Your task to perform on an android device: Search for logitech g933 on bestbuy.com, select the first entry, add it to the cart, then select checkout. Image 0: 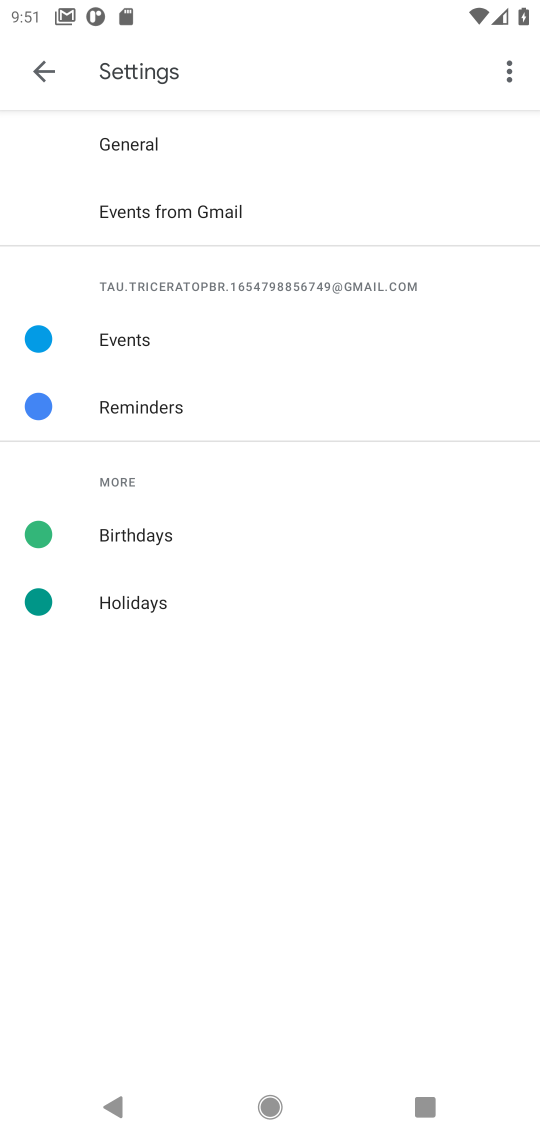
Step 0: press home button
Your task to perform on an android device: Search for logitech g933 on bestbuy.com, select the first entry, add it to the cart, then select checkout. Image 1: 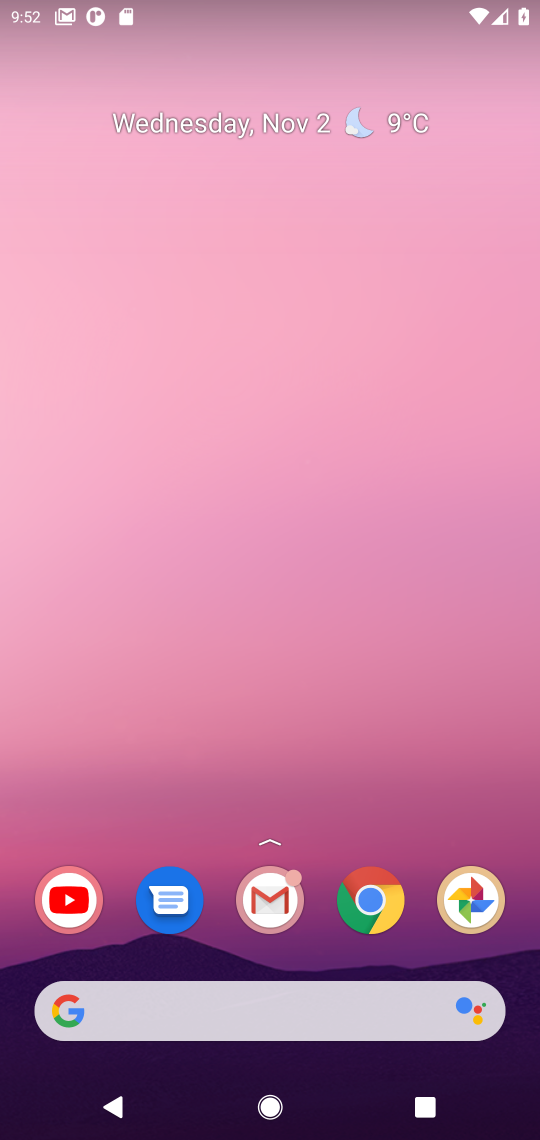
Step 1: click (366, 913)
Your task to perform on an android device: Search for logitech g933 on bestbuy.com, select the first entry, add it to the cart, then select checkout. Image 2: 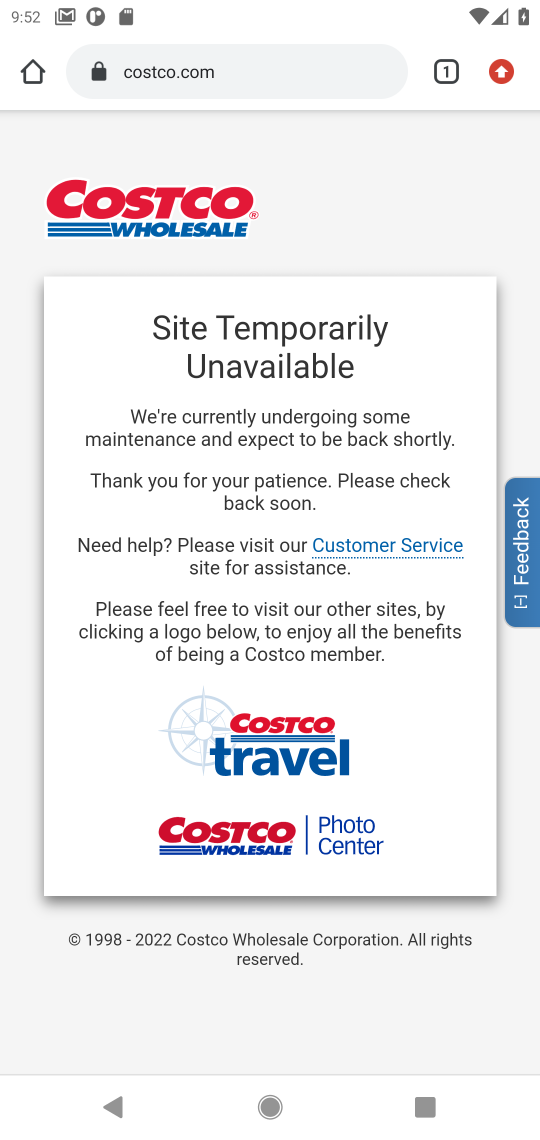
Step 2: click (231, 53)
Your task to perform on an android device: Search for logitech g933 on bestbuy.com, select the first entry, add it to the cart, then select checkout. Image 3: 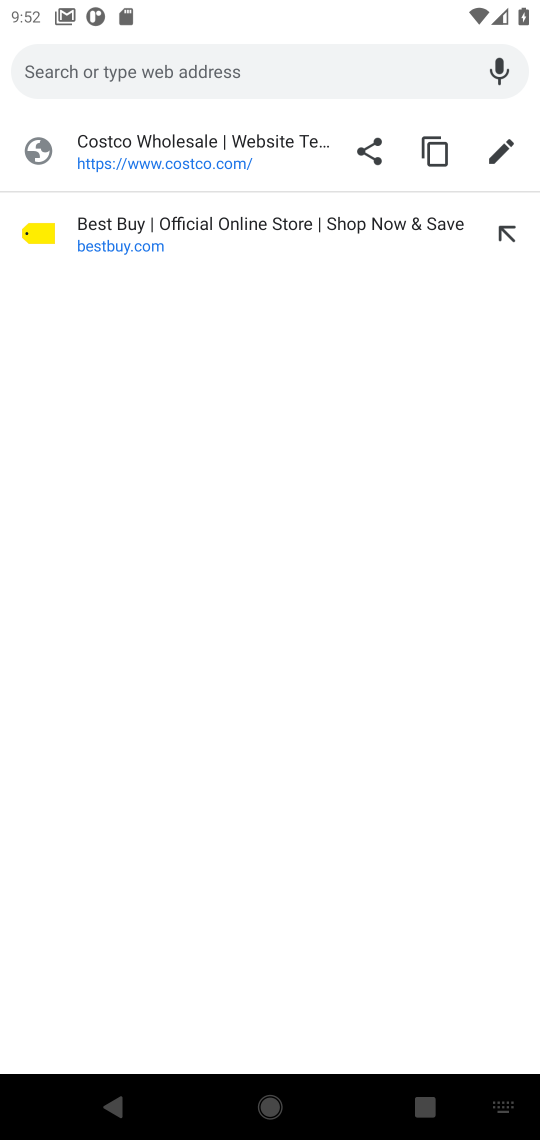
Step 3: click (184, 238)
Your task to perform on an android device: Search for logitech g933 on bestbuy.com, select the first entry, add it to the cart, then select checkout. Image 4: 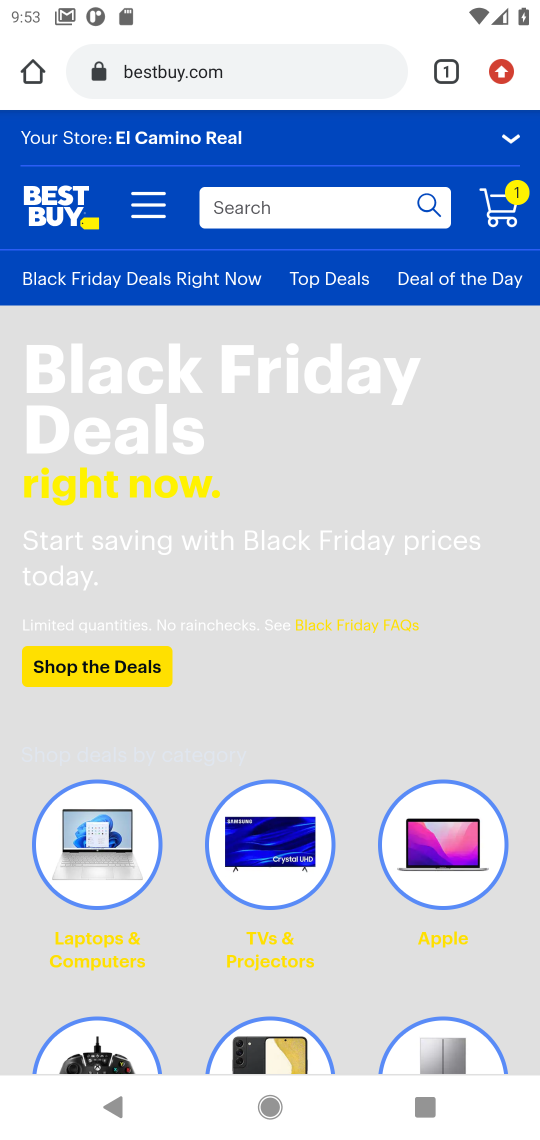
Step 4: click (301, 209)
Your task to perform on an android device: Search for logitech g933 on bestbuy.com, select the first entry, add it to the cart, then select checkout. Image 5: 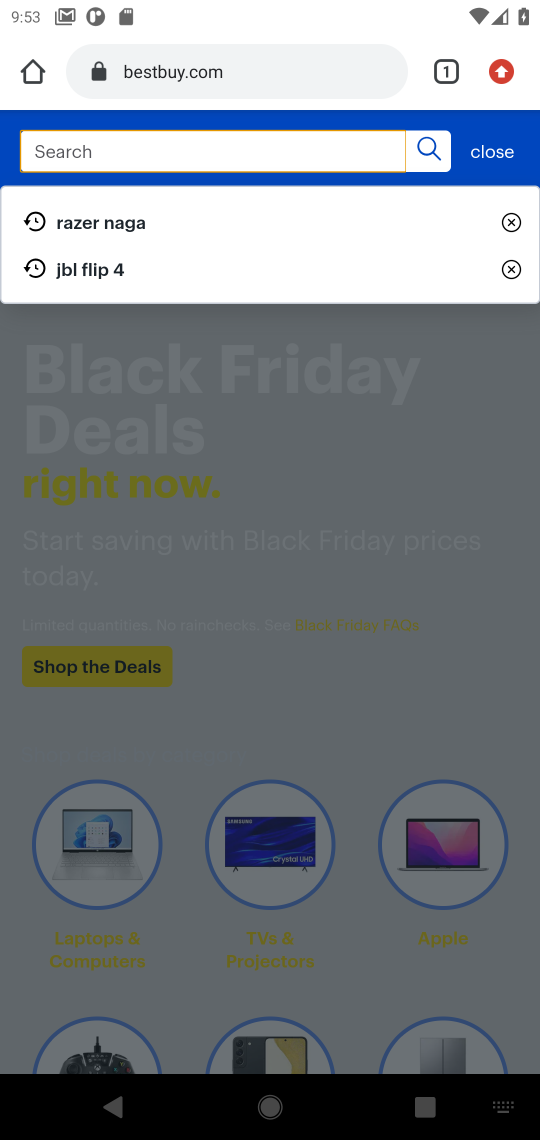
Step 5: type " logitech g933"
Your task to perform on an android device: Search for logitech g933 on bestbuy.com, select the first entry, add it to the cart, then select checkout. Image 6: 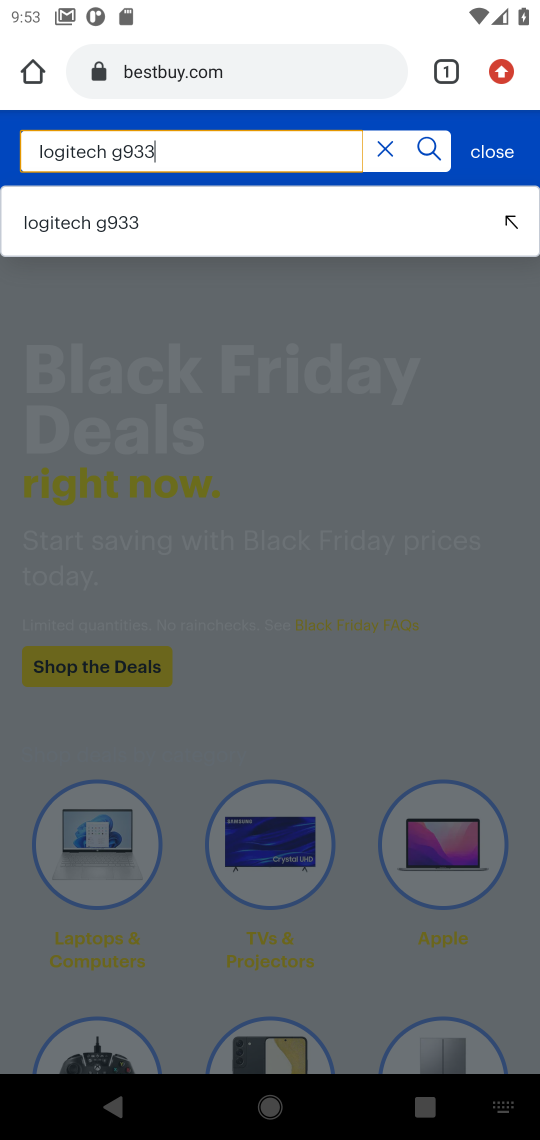
Step 6: click (59, 208)
Your task to perform on an android device: Search for logitech g933 on bestbuy.com, select the first entry, add it to the cart, then select checkout. Image 7: 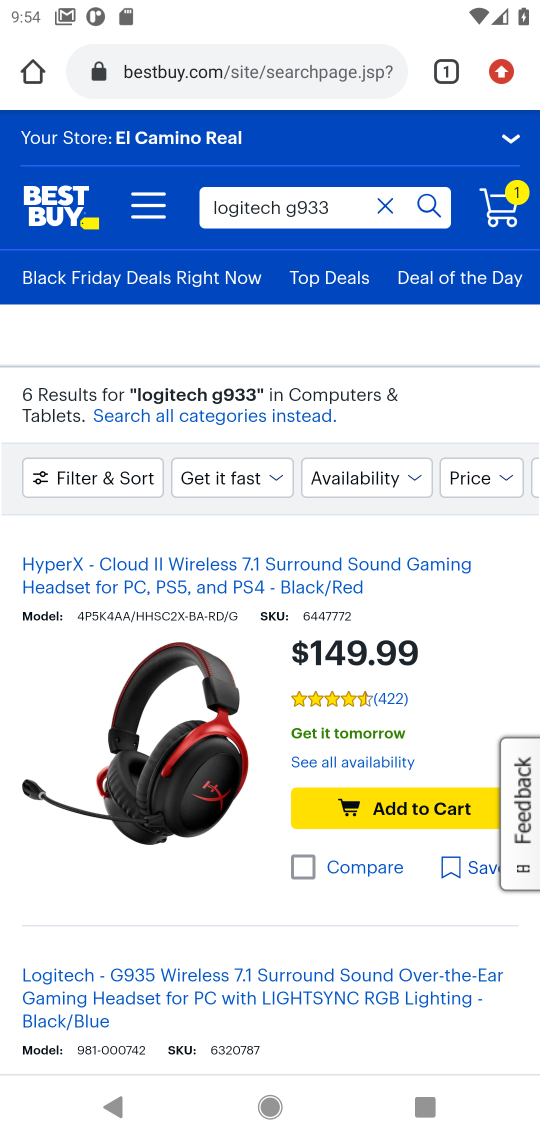
Step 7: drag from (262, 1018) to (317, 314)
Your task to perform on an android device: Search for logitech g933 on bestbuy.com, select the first entry, add it to the cart, then select checkout. Image 8: 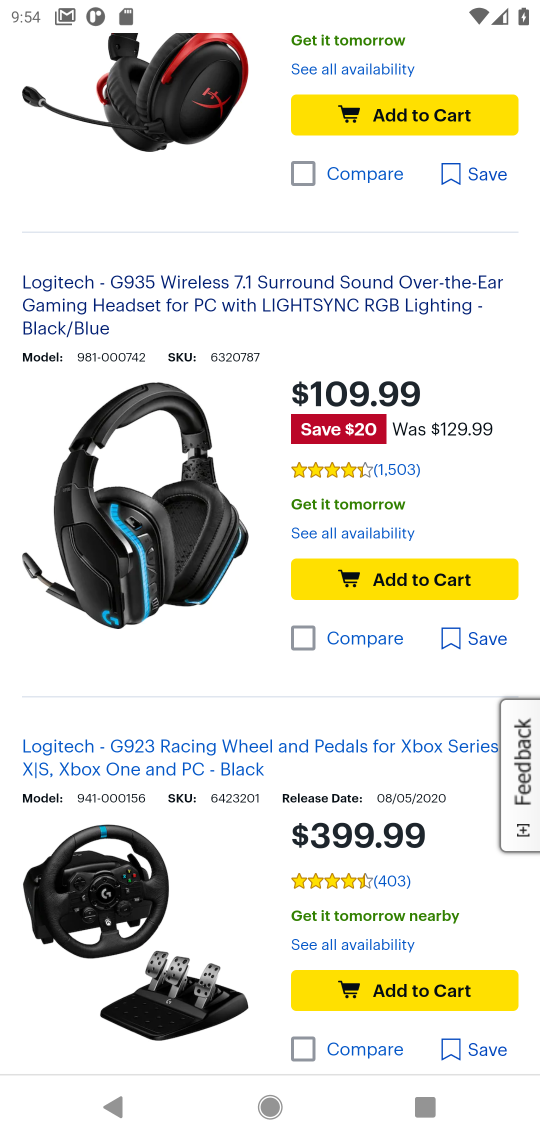
Step 8: click (390, 940)
Your task to perform on an android device: Search for logitech g933 on bestbuy.com, select the first entry, add it to the cart, then select checkout. Image 9: 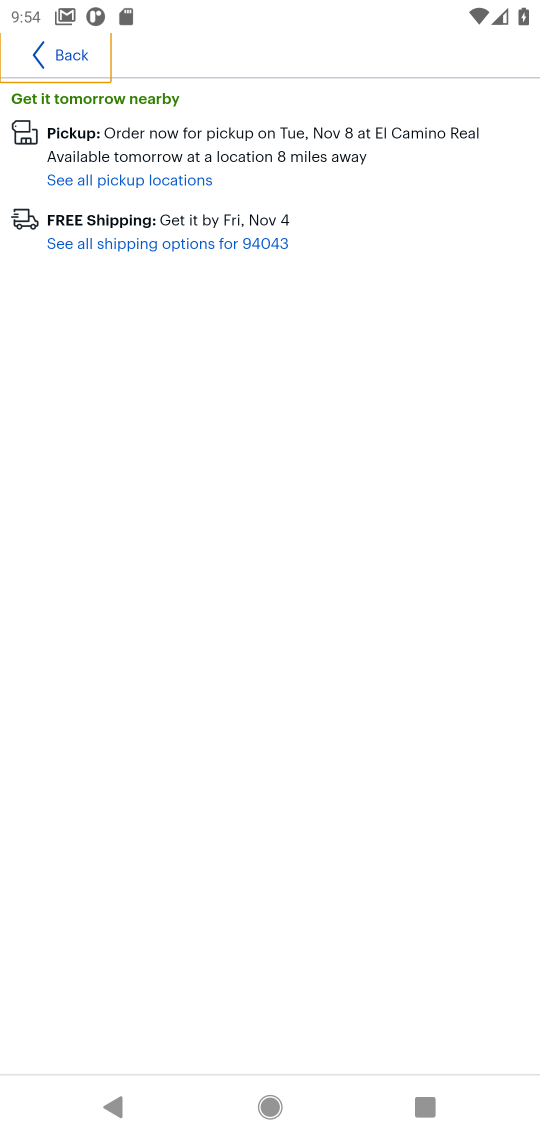
Step 9: click (39, 45)
Your task to perform on an android device: Search for logitech g933 on bestbuy.com, select the first entry, add it to the cart, then select checkout. Image 10: 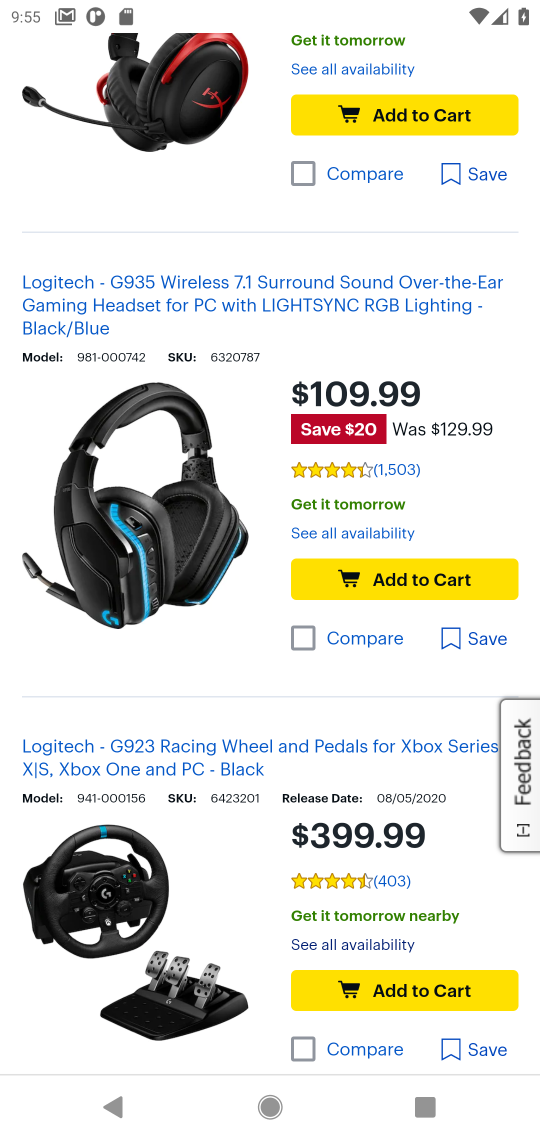
Step 10: drag from (144, 111) to (21, 820)
Your task to perform on an android device: Search for logitech g933 on bestbuy.com, select the first entry, add it to the cart, then select checkout. Image 11: 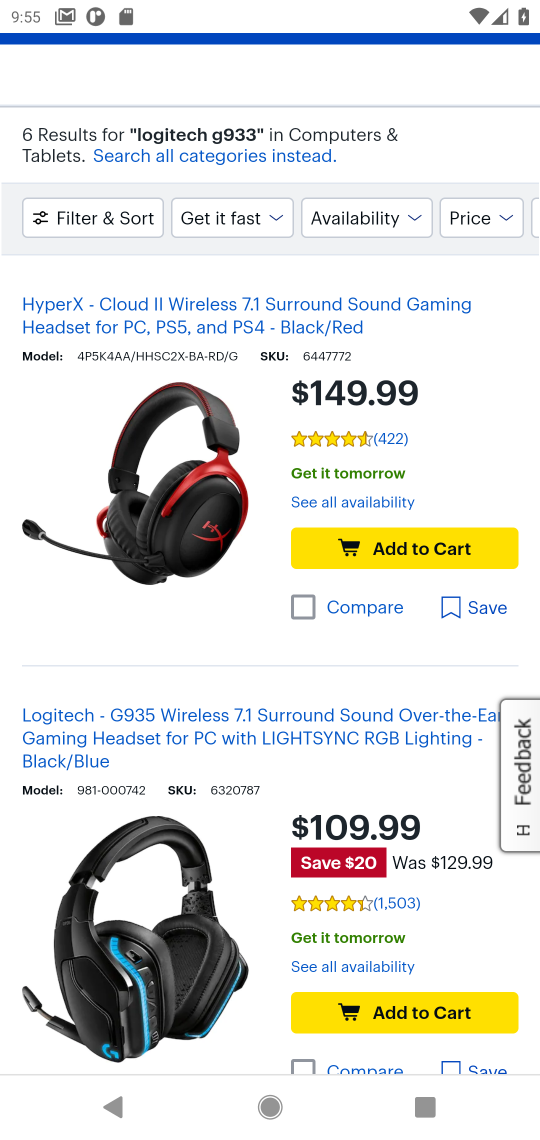
Step 11: click (484, 815)
Your task to perform on an android device: Search for logitech g933 on bestbuy.com, select the first entry, add it to the cart, then select checkout. Image 12: 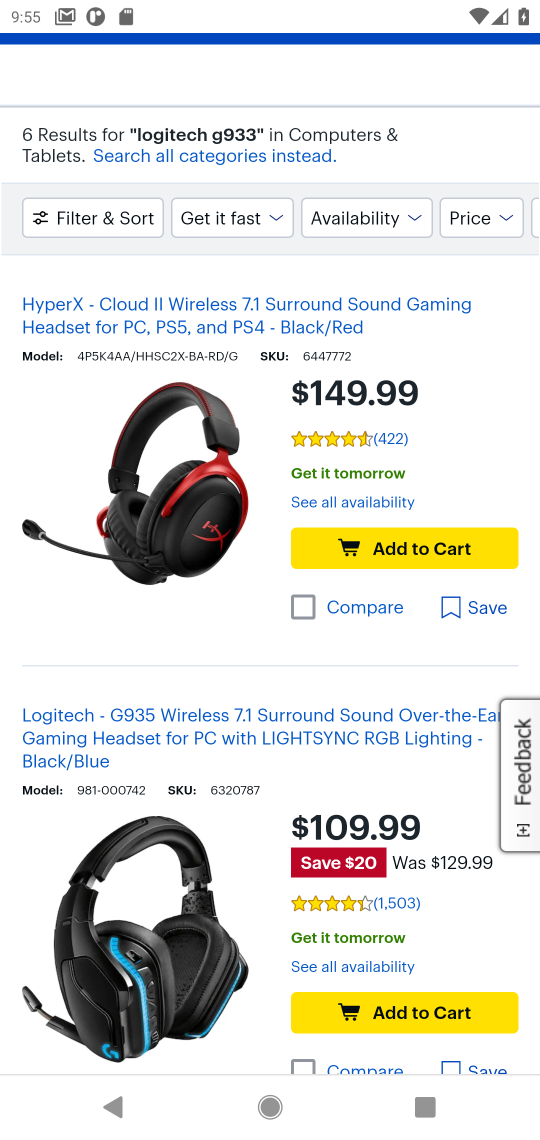
Step 12: drag from (424, 127) to (369, 738)
Your task to perform on an android device: Search for logitech g933 on bestbuy.com, select the first entry, add it to the cart, then select checkout. Image 13: 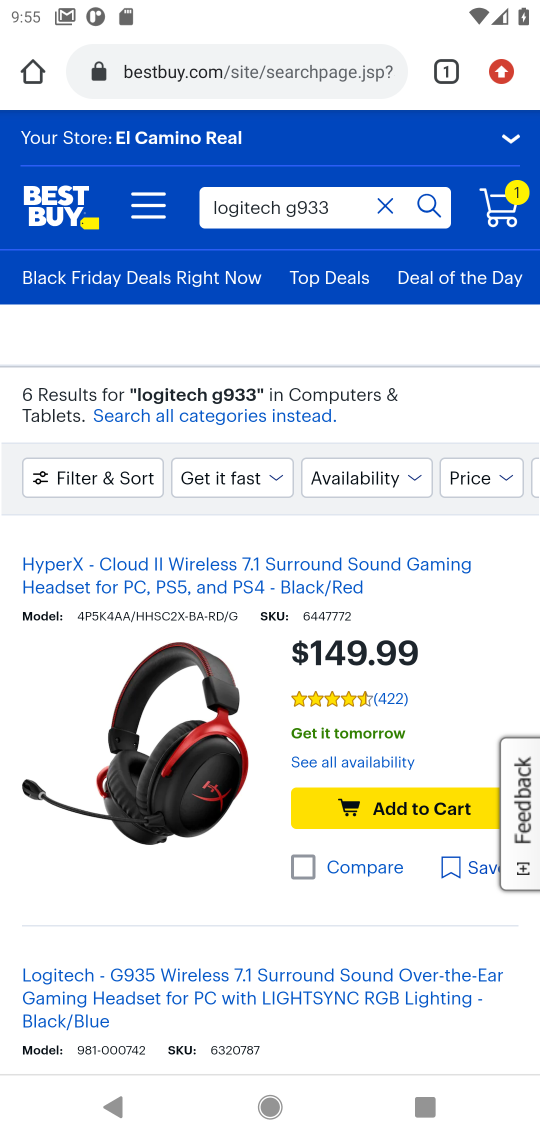
Step 13: click (510, 214)
Your task to perform on an android device: Search for logitech g933 on bestbuy.com, select the first entry, add it to the cart, then select checkout. Image 14: 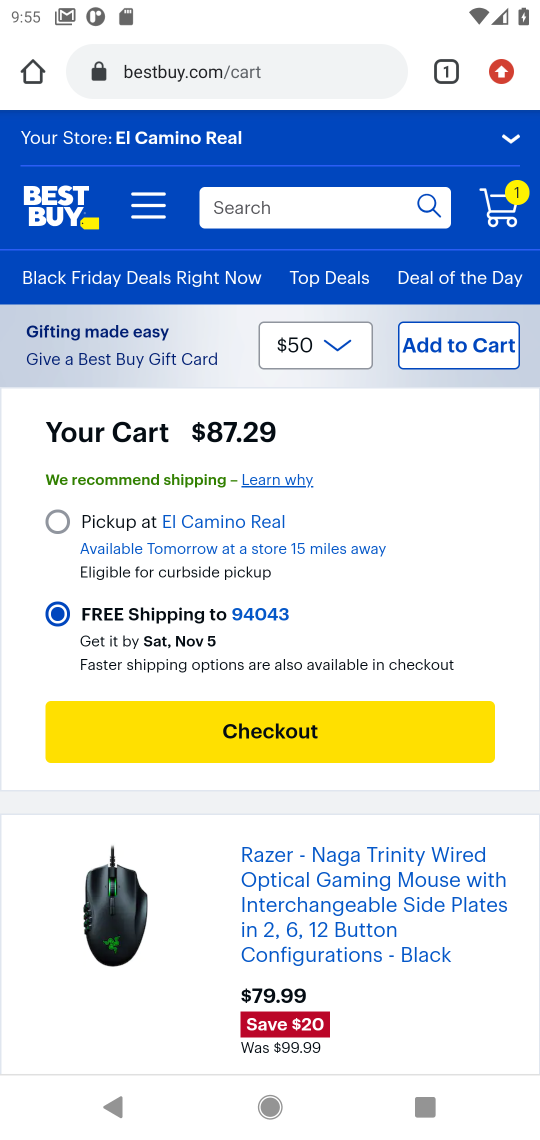
Step 14: press back button
Your task to perform on an android device: Search for logitech g933 on bestbuy.com, select the first entry, add it to the cart, then select checkout. Image 15: 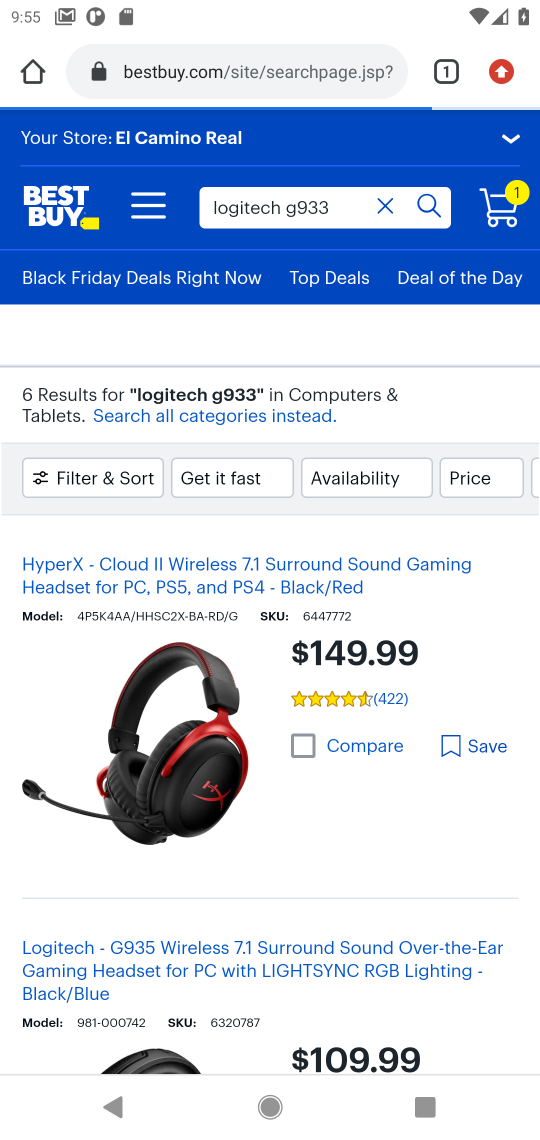
Step 15: drag from (283, 894) to (271, 401)
Your task to perform on an android device: Search for logitech g933 on bestbuy.com, select the first entry, add it to the cart, then select checkout. Image 16: 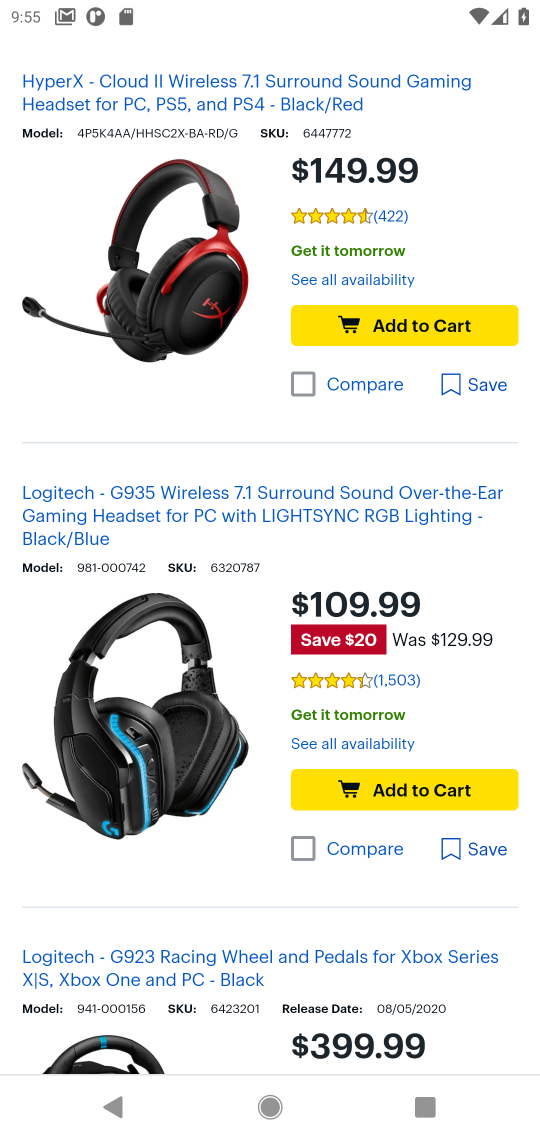
Step 16: click (419, 780)
Your task to perform on an android device: Search for logitech g933 on bestbuy.com, select the first entry, add it to the cart, then select checkout. Image 17: 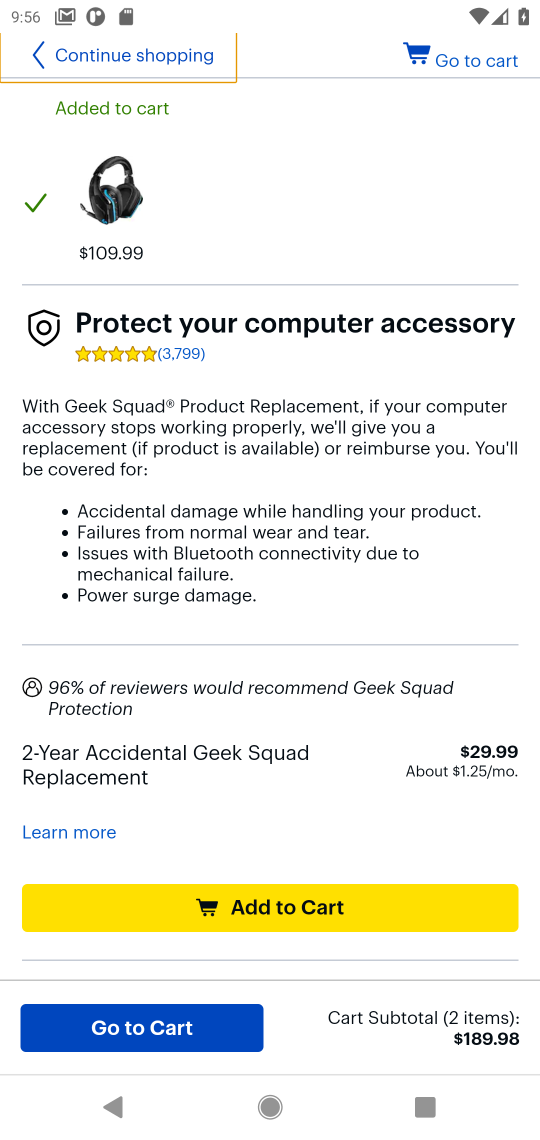
Step 17: click (111, 1039)
Your task to perform on an android device: Search for logitech g933 on bestbuy.com, select the first entry, add it to the cart, then select checkout. Image 18: 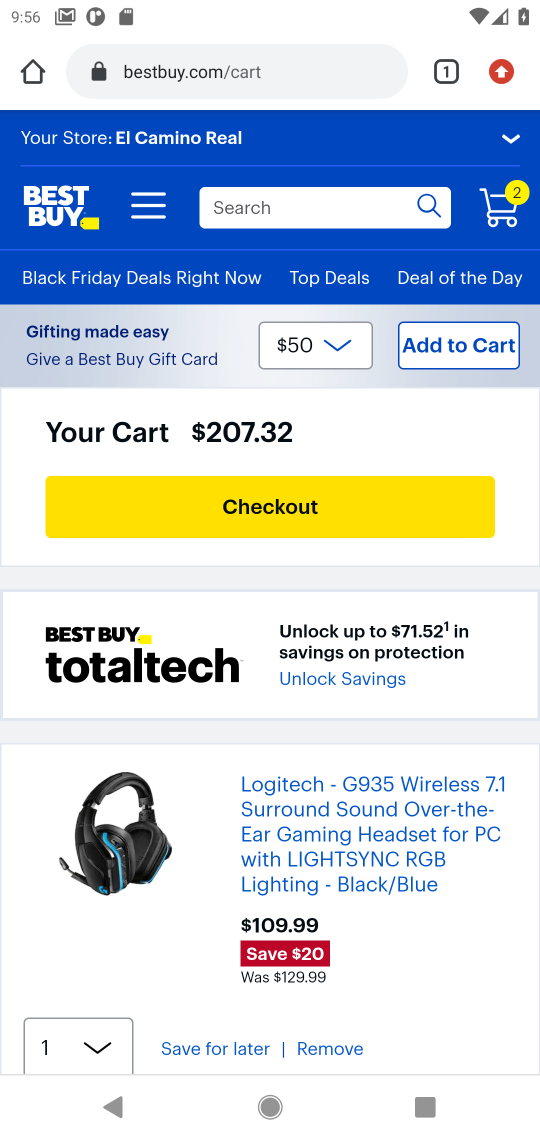
Step 18: click (335, 494)
Your task to perform on an android device: Search for logitech g933 on bestbuy.com, select the first entry, add it to the cart, then select checkout. Image 19: 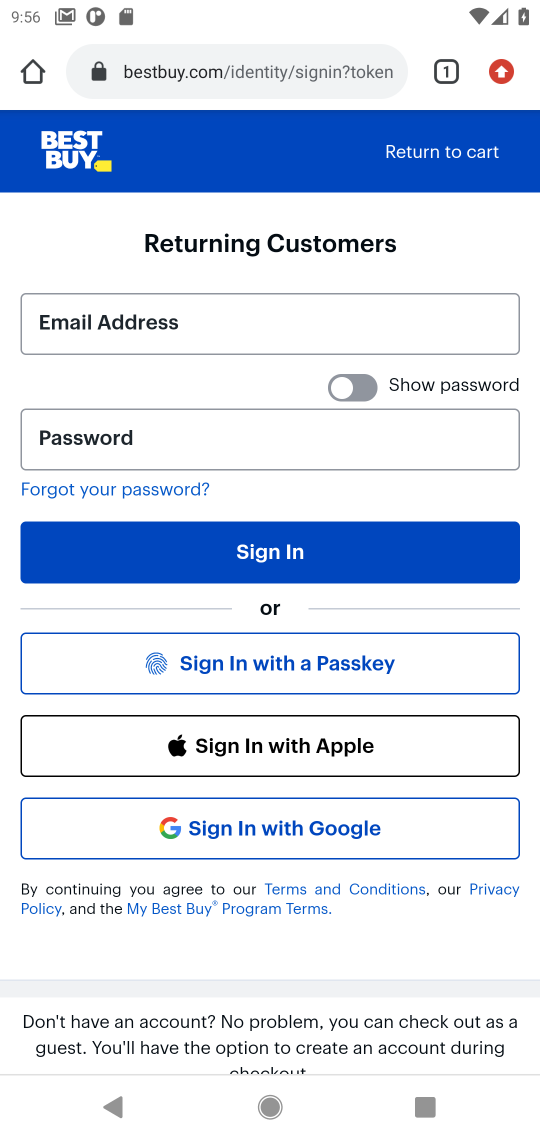
Step 19: task complete